Your task to perform on an android device: Search for sushi restaurants on Maps Image 0: 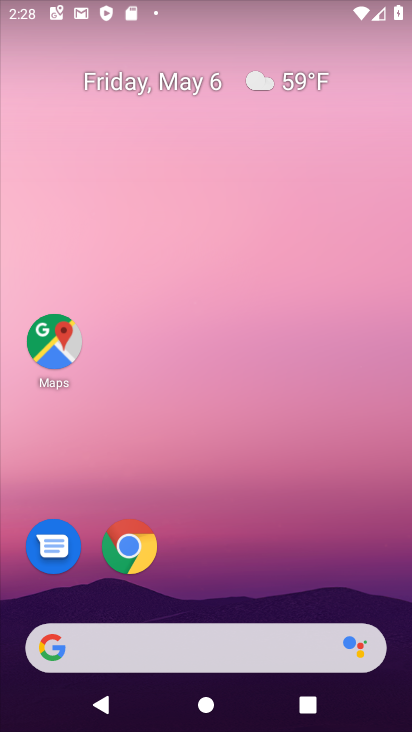
Step 0: click (98, 468)
Your task to perform on an android device: Search for sushi restaurants on Maps Image 1: 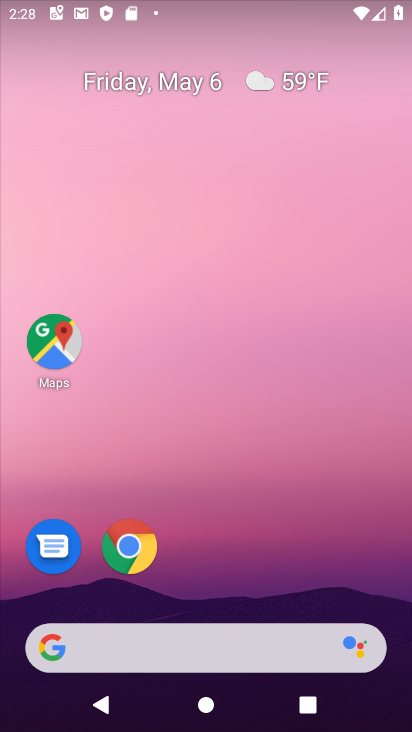
Step 1: click (59, 348)
Your task to perform on an android device: Search for sushi restaurants on Maps Image 2: 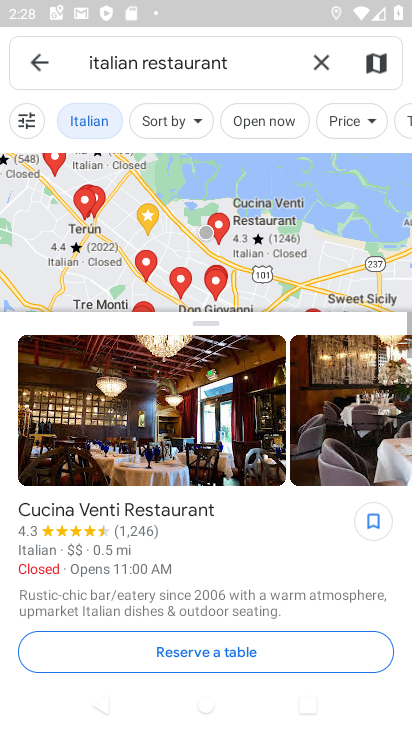
Step 2: click (322, 55)
Your task to perform on an android device: Search for sushi restaurants on Maps Image 3: 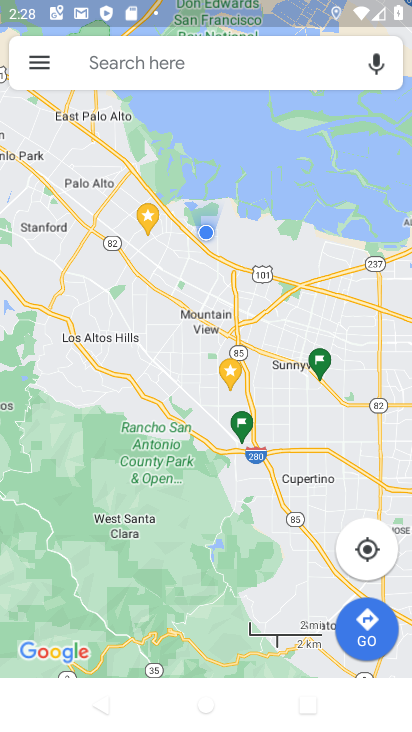
Step 3: click (235, 70)
Your task to perform on an android device: Search for sushi restaurants on Maps Image 4: 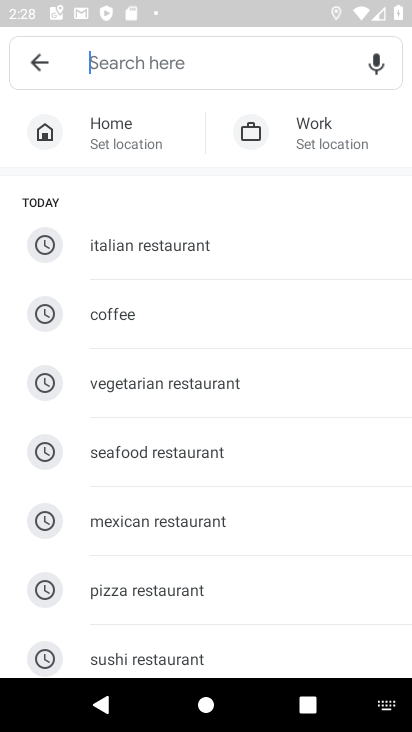
Step 4: click (215, 656)
Your task to perform on an android device: Search for sushi restaurants on Maps Image 5: 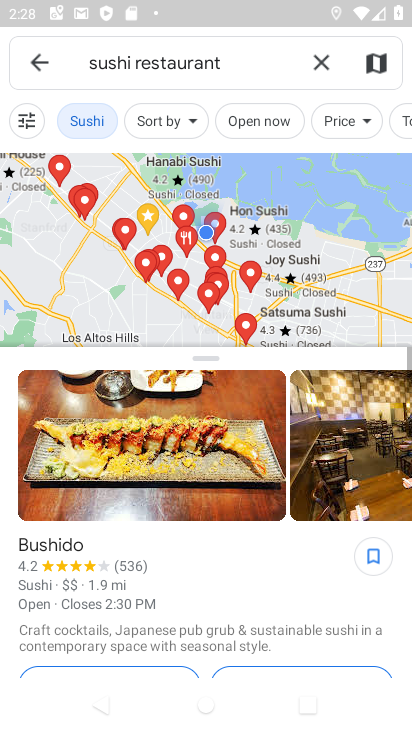
Step 5: click (222, 157)
Your task to perform on an android device: Search for sushi restaurants on Maps Image 6: 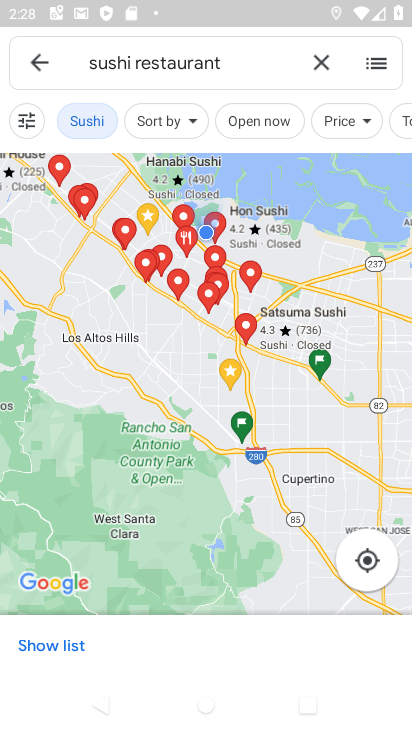
Step 6: click (50, 646)
Your task to perform on an android device: Search for sushi restaurants on Maps Image 7: 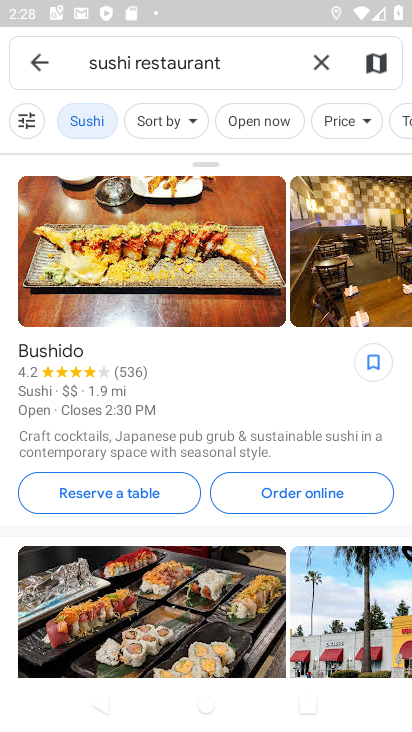
Step 7: task complete